Your task to perform on an android device: open sync settings in chrome Image 0: 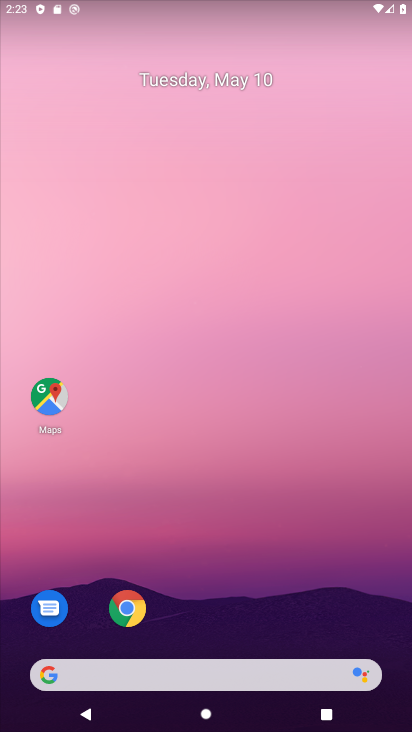
Step 0: click (133, 614)
Your task to perform on an android device: open sync settings in chrome Image 1: 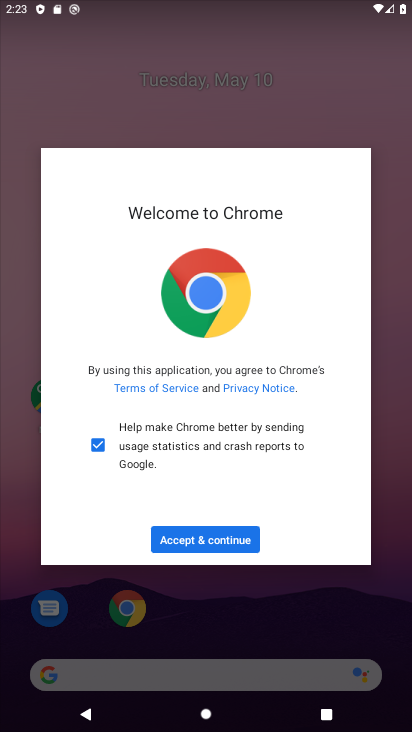
Step 1: click (202, 540)
Your task to perform on an android device: open sync settings in chrome Image 2: 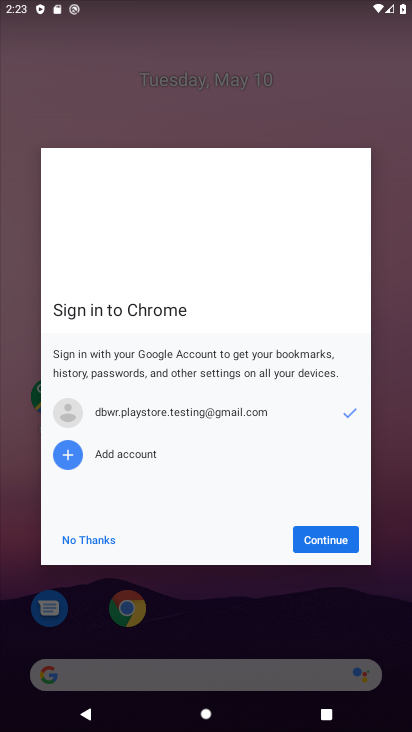
Step 2: click (99, 541)
Your task to perform on an android device: open sync settings in chrome Image 3: 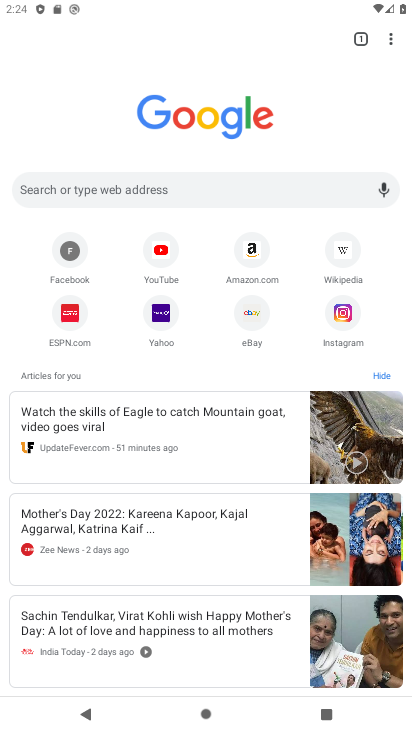
Step 3: drag from (392, 34) to (248, 324)
Your task to perform on an android device: open sync settings in chrome Image 4: 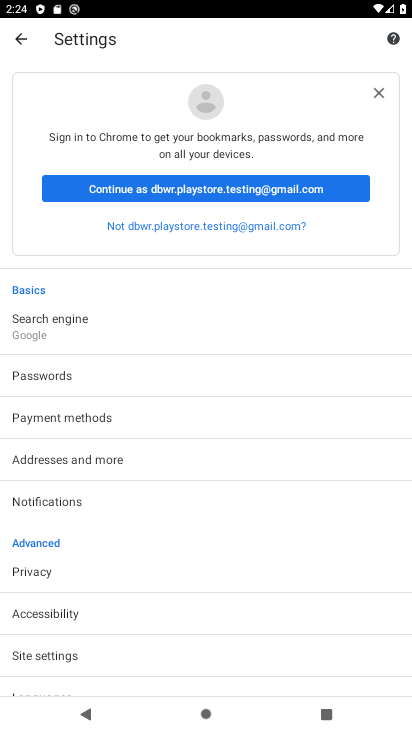
Step 4: click (206, 188)
Your task to perform on an android device: open sync settings in chrome Image 5: 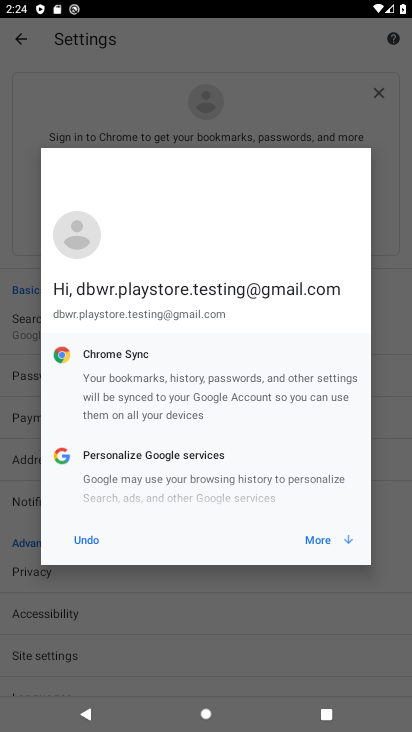
Step 5: click (327, 537)
Your task to perform on an android device: open sync settings in chrome Image 6: 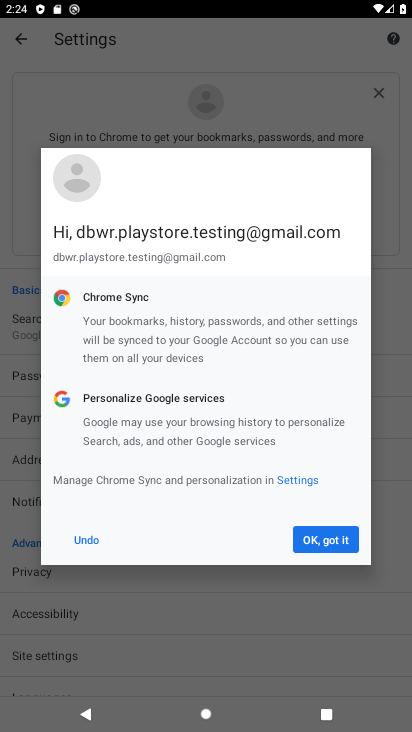
Step 6: click (321, 543)
Your task to perform on an android device: open sync settings in chrome Image 7: 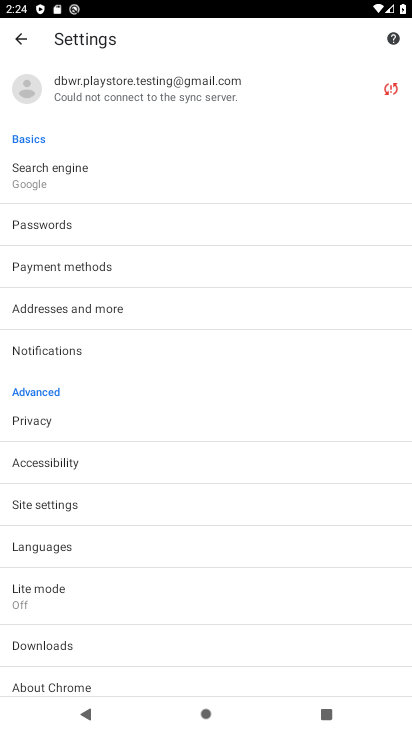
Step 7: click (144, 100)
Your task to perform on an android device: open sync settings in chrome Image 8: 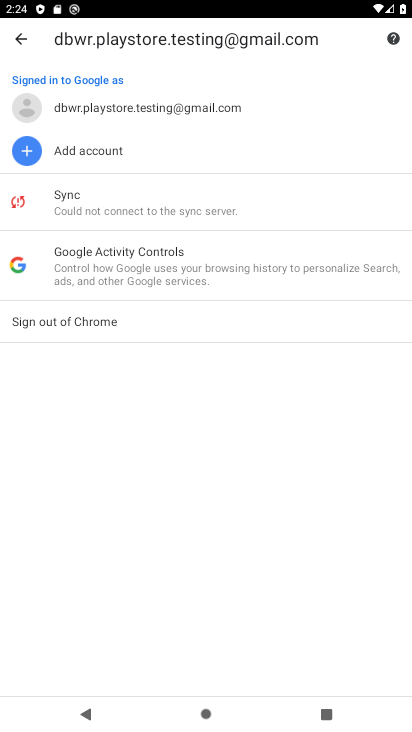
Step 8: click (85, 205)
Your task to perform on an android device: open sync settings in chrome Image 9: 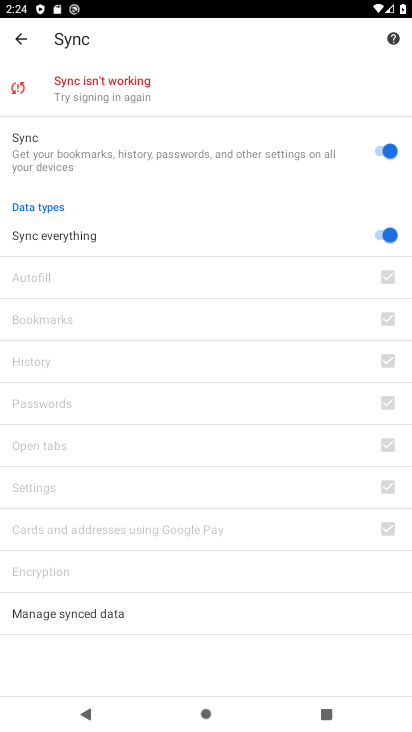
Step 9: task complete